Your task to perform on an android device: What's on my calendar today? Image 0: 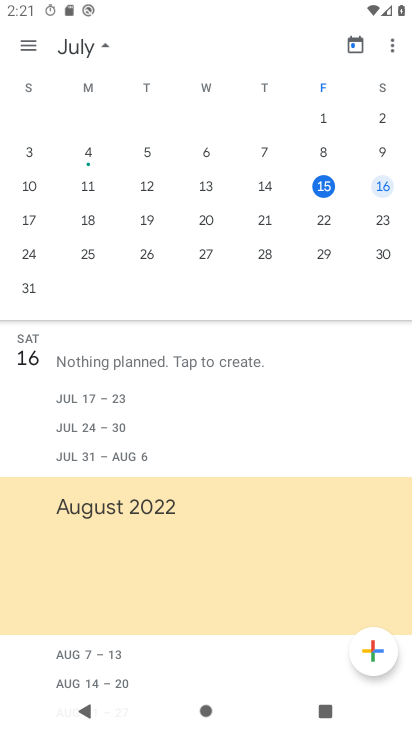
Step 0: click (325, 187)
Your task to perform on an android device: What's on my calendar today? Image 1: 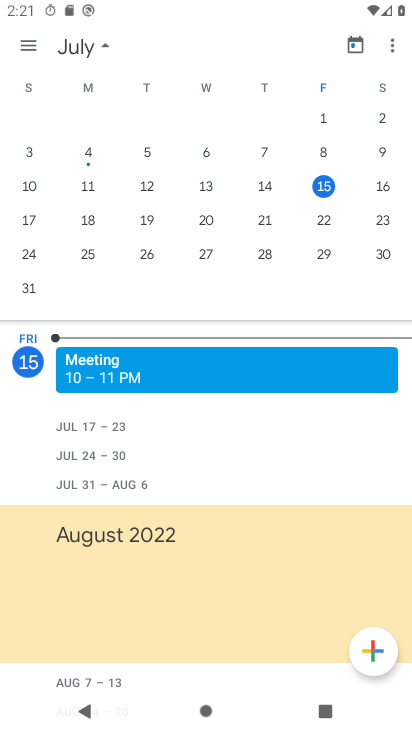
Step 1: task complete